Your task to perform on an android device: allow notifications from all sites in the chrome app Image 0: 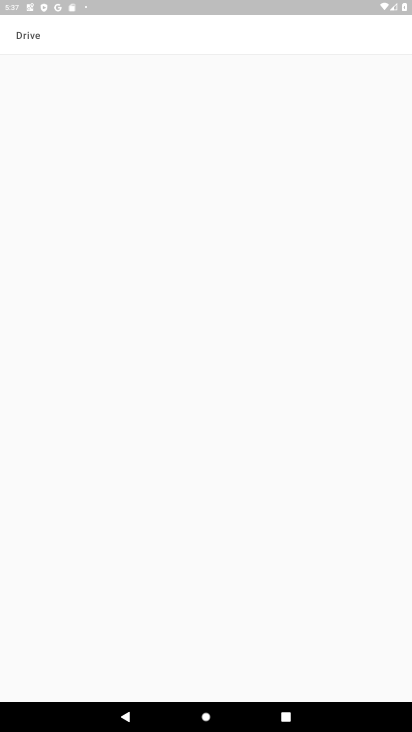
Step 0: press home button
Your task to perform on an android device: allow notifications from all sites in the chrome app Image 1: 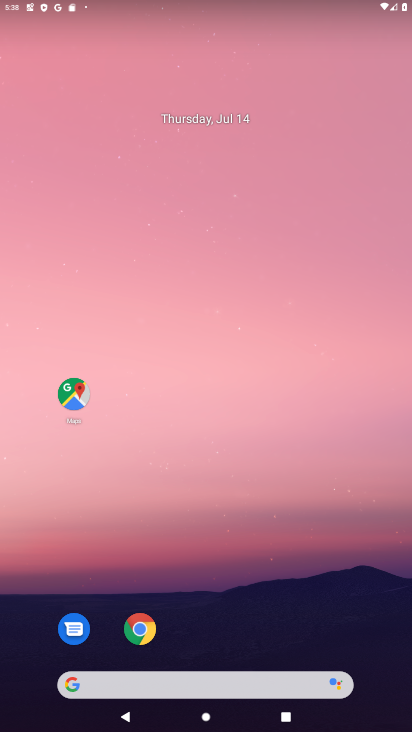
Step 1: drag from (205, 680) to (238, 17)
Your task to perform on an android device: allow notifications from all sites in the chrome app Image 2: 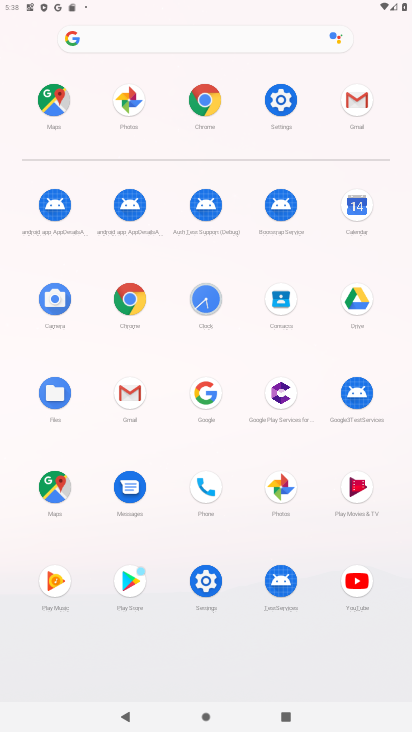
Step 2: click (141, 305)
Your task to perform on an android device: allow notifications from all sites in the chrome app Image 3: 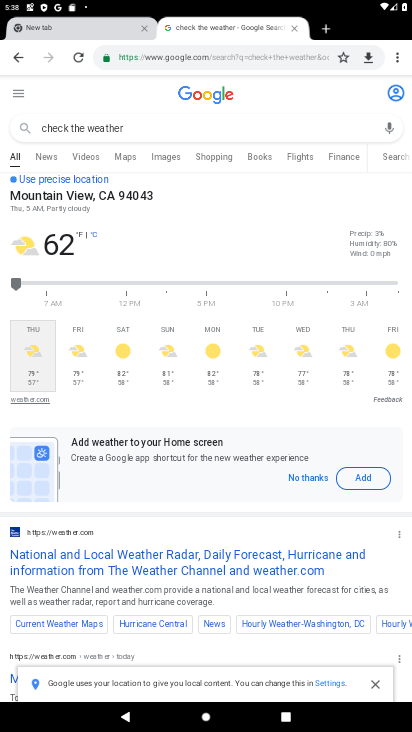
Step 3: click (399, 66)
Your task to perform on an android device: allow notifications from all sites in the chrome app Image 4: 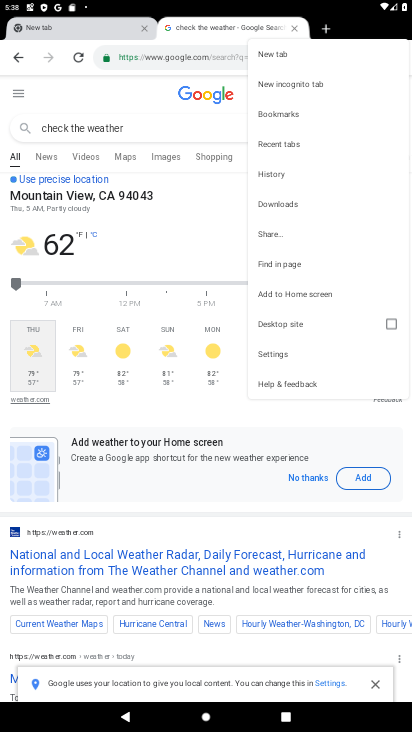
Step 4: click (285, 357)
Your task to perform on an android device: allow notifications from all sites in the chrome app Image 5: 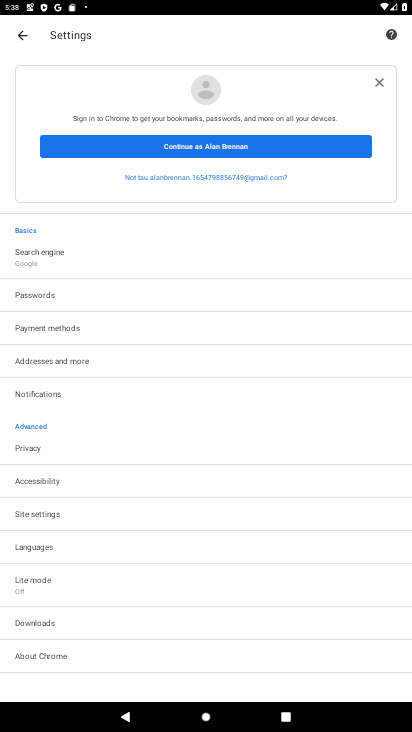
Step 5: click (104, 520)
Your task to perform on an android device: allow notifications from all sites in the chrome app Image 6: 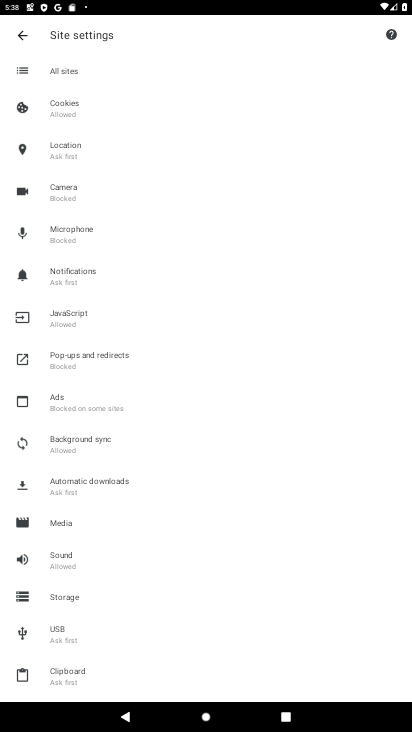
Step 6: click (91, 267)
Your task to perform on an android device: allow notifications from all sites in the chrome app Image 7: 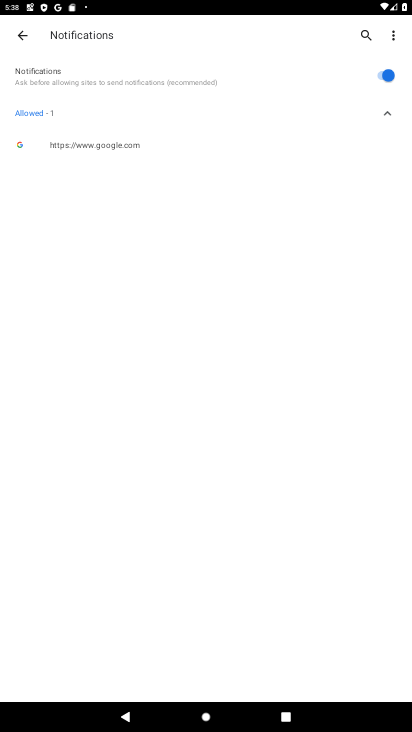
Step 7: task complete